Your task to perform on an android device: allow cookies in the chrome app Image 0: 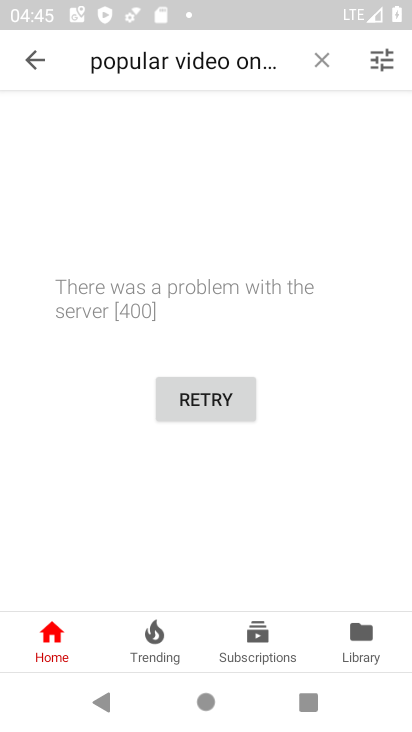
Step 0: press home button
Your task to perform on an android device: allow cookies in the chrome app Image 1: 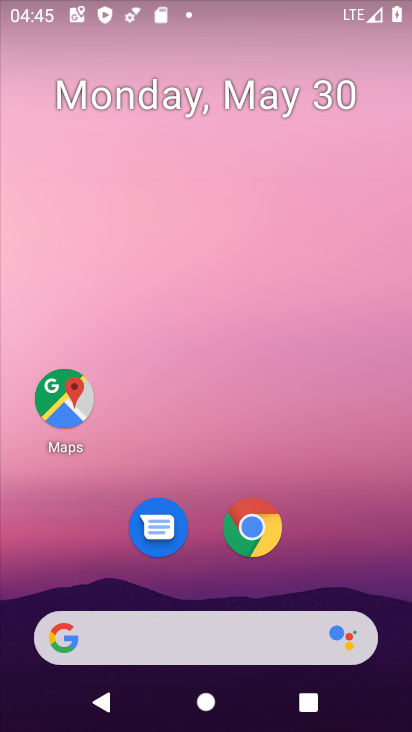
Step 1: click (252, 523)
Your task to perform on an android device: allow cookies in the chrome app Image 2: 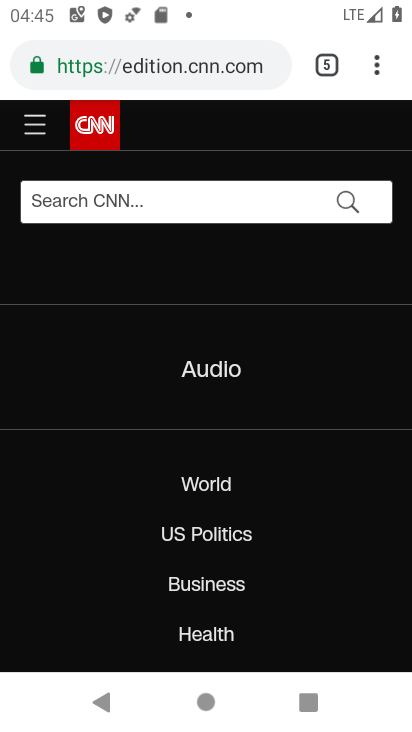
Step 2: click (376, 69)
Your task to perform on an android device: allow cookies in the chrome app Image 3: 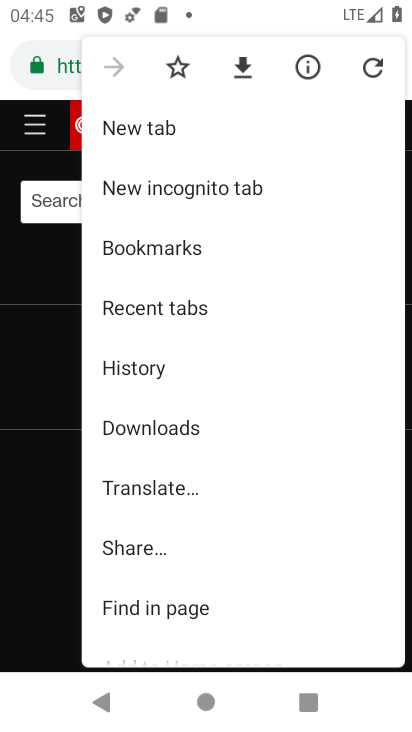
Step 3: drag from (163, 618) to (183, 173)
Your task to perform on an android device: allow cookies in the chrome app Image 4: 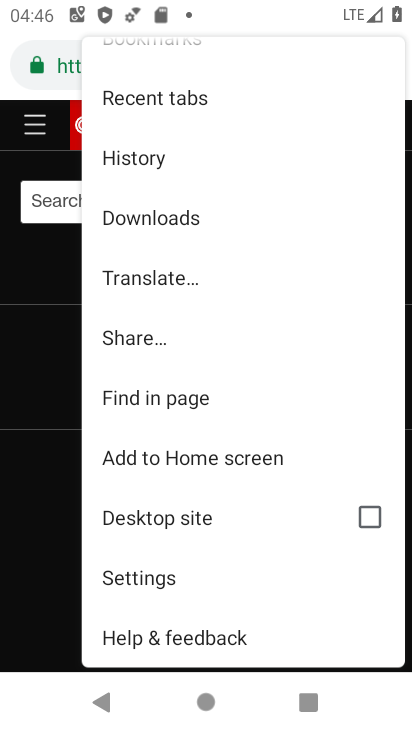
Step 4: click (153, 576)
Your task to perform on an android device: allow cookies in the chrome app Image 5: 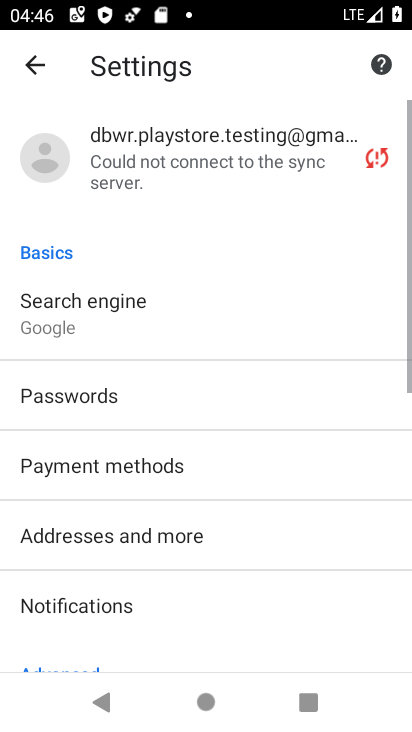
Step 5: drag from (140, 648) to (140, 229)
Your task to perform on an android device: allow cookies in the chrome app Image 6: 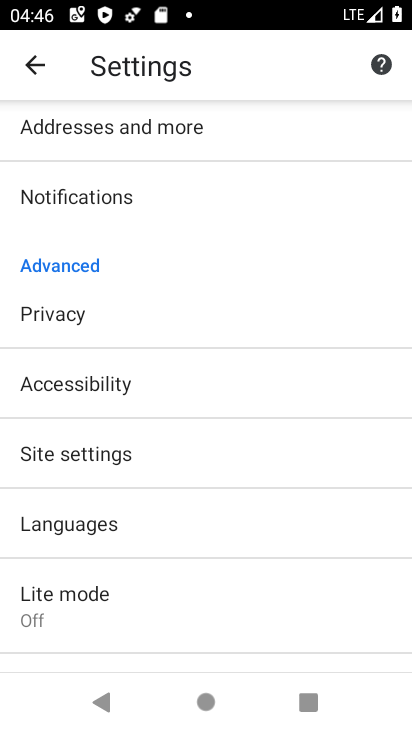
Step 6: click (96, 449)
Your task to perform on an android device: allow cookies in the chrome app Image 7: 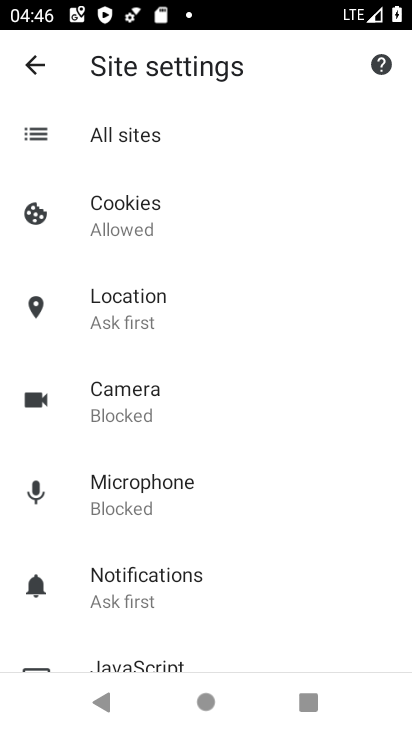
Step 7: click (134, 210)
Your task to perform on an android device: allow cookies in the chrome app Image 8: 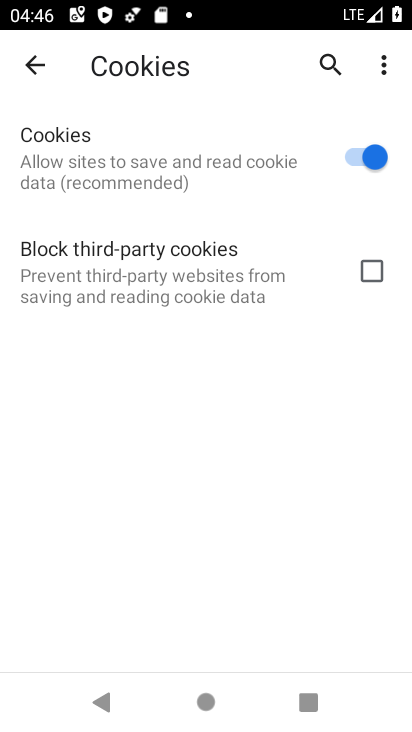
Step 8: task complete